Your task to perform on an android device: Toggle the flashlight Image 0: 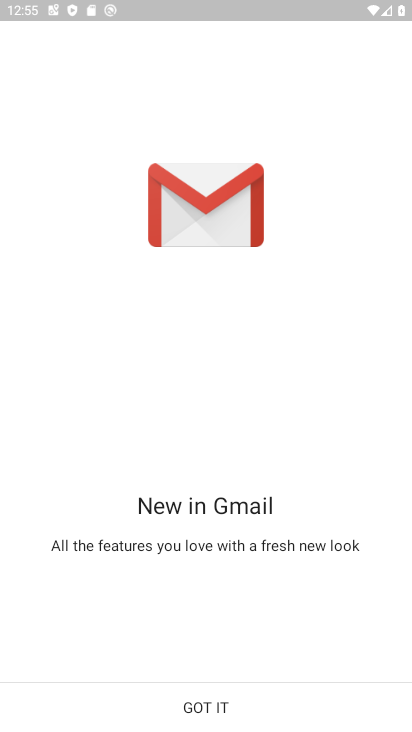
Step 0: click (205, 706)
Your task to perform on an android device: Toggle the flashlight Image 1: 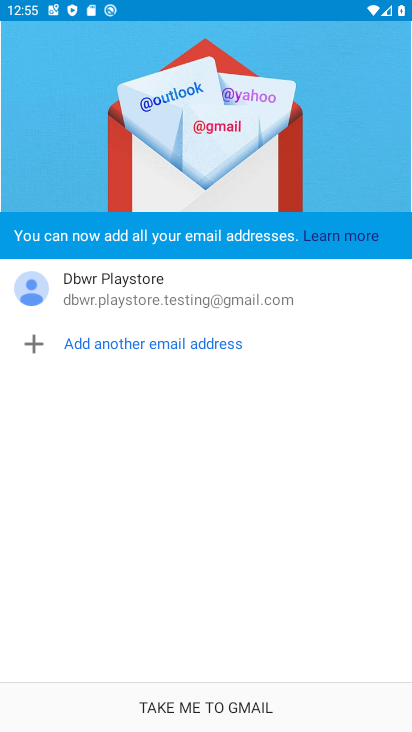
Step 1: click (258, 705)
Your task to perform on an android device: Toggle the flashlight Image 2: 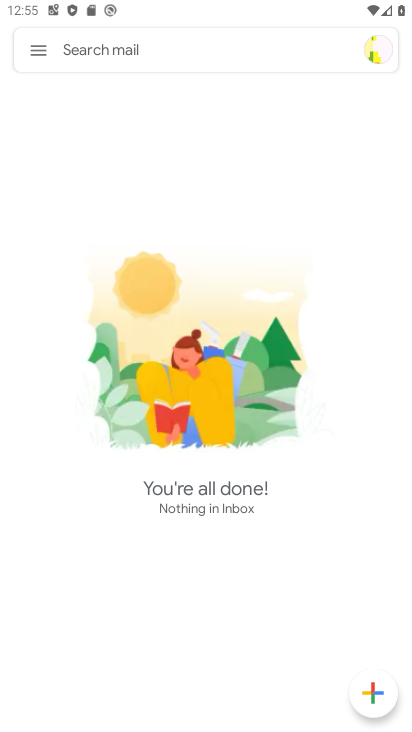
Step 2: click (42, 55)
Your task to perform on an android device: Toggle the flashlight Image 3: 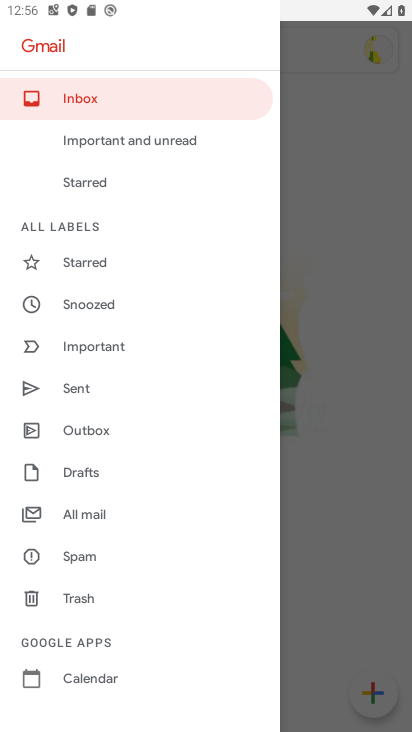
Step 3: drag from (121, 610) to (120, 346)
Your task to perform on an android device: Toggle the flashlight Image 4: 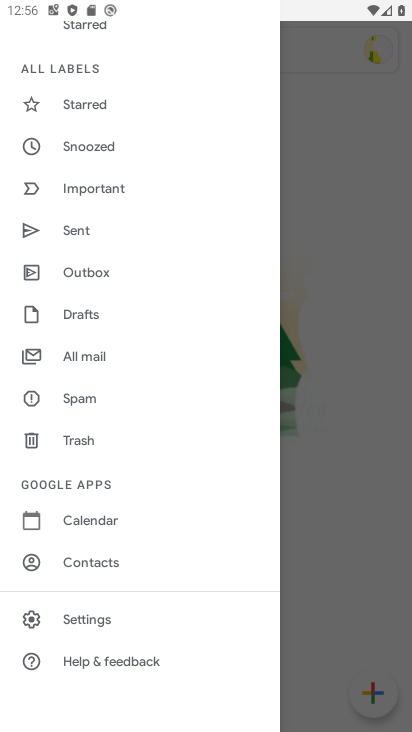
Step 4: press home button
Your task to perform on an android device: Toggle the flashlight Image 5: 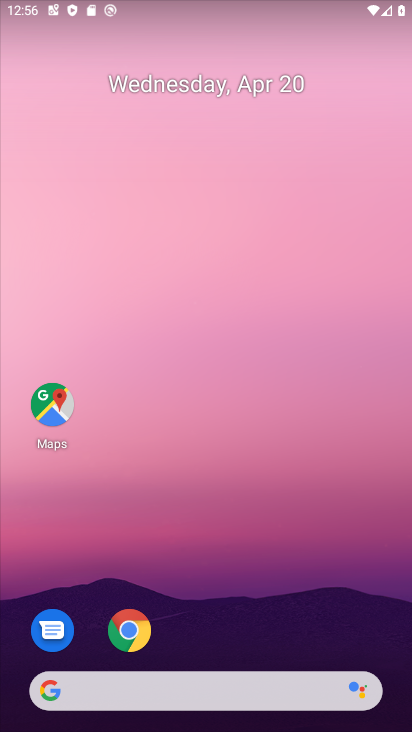
Step 5: drag from (333, 594) to (321, 101)
Your task to perform on an android device: Toggle the flashlight Image 6: 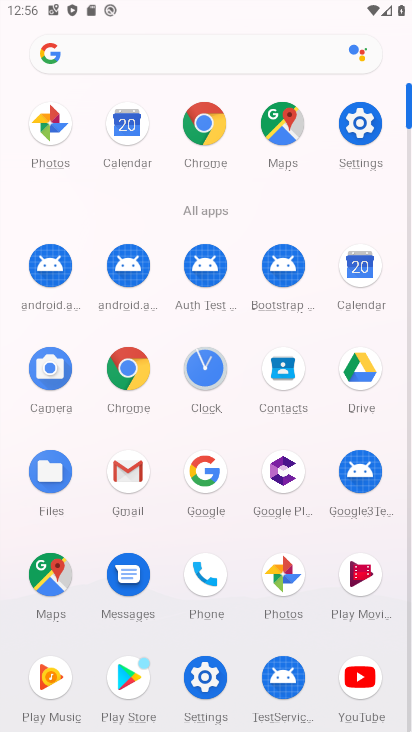
Step 6: click (367, 116)
Your task to perform on an android device: Toggle the flashlight Image 7: 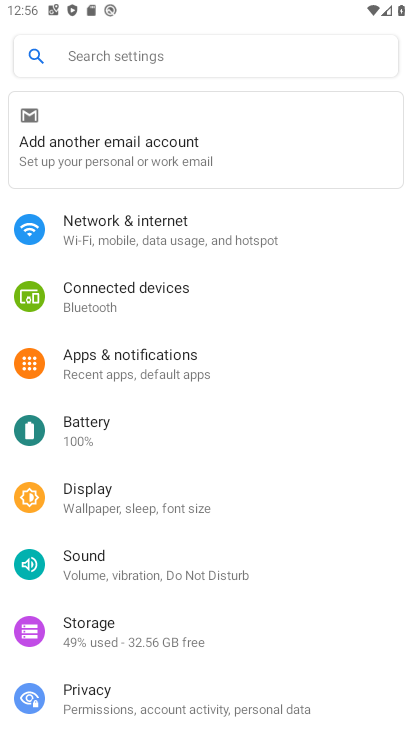
Step 7: click (145, 50)
Your task to perform on an android device: Toggle the flashlight Image 8: 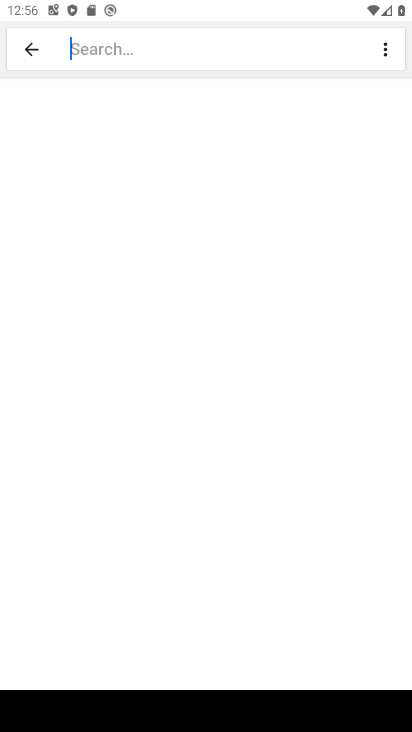
Step 8: type "flashlight"
Your task to perform on an android device: Toggle the flashlight Image 9: 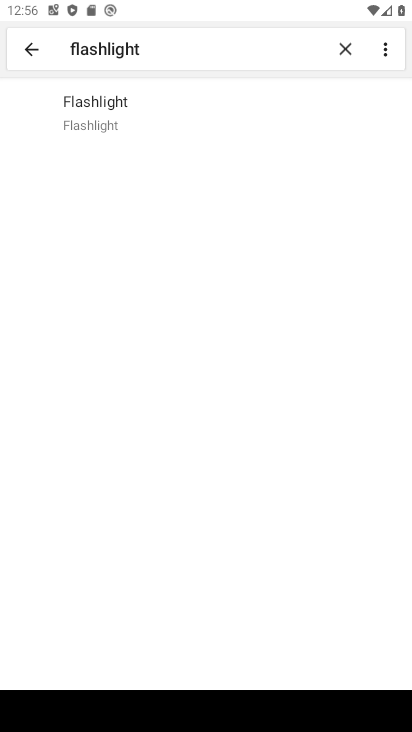
Step 9: click (132, 109)
Your task to perform on an android device: Toggle the flashlight Image 10: 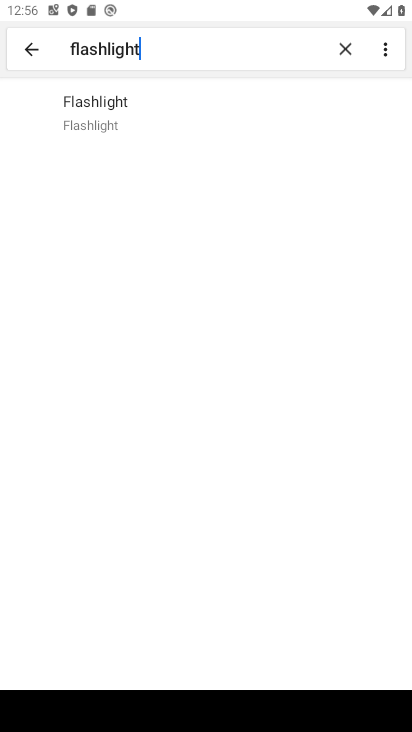
Step 10: task complete